Your task to perform on an android device: open app "DoorDash - Dasher" (install if not already installed) and go to login screen Image 0: 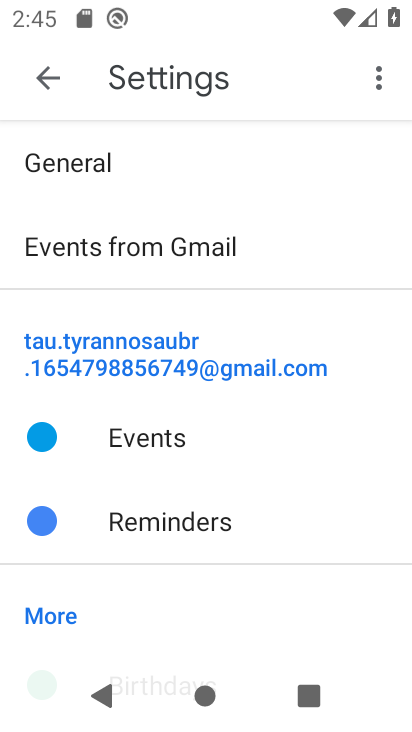
Step 0: press home button
Your task to perform on an android device: open app "DoorDash - Dasher" (install if not already installed) and go to login screen Image 1: 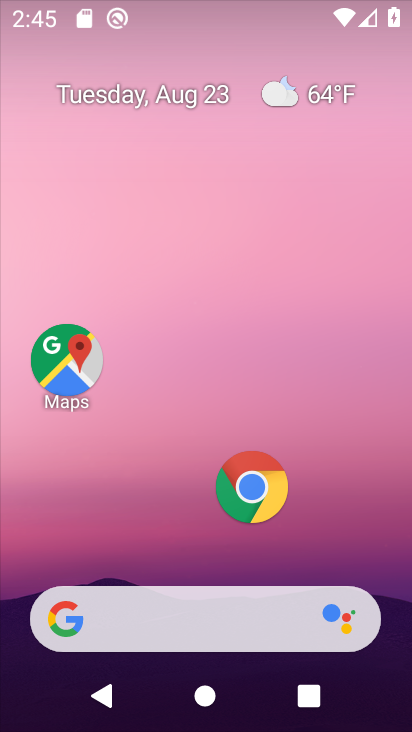
Step 1: drag from (164, 529) to (231, 218)
Your task to perform on an android device: open app "DoorDash - Dasher" (install if not already installed) and go to login screen Image 2: 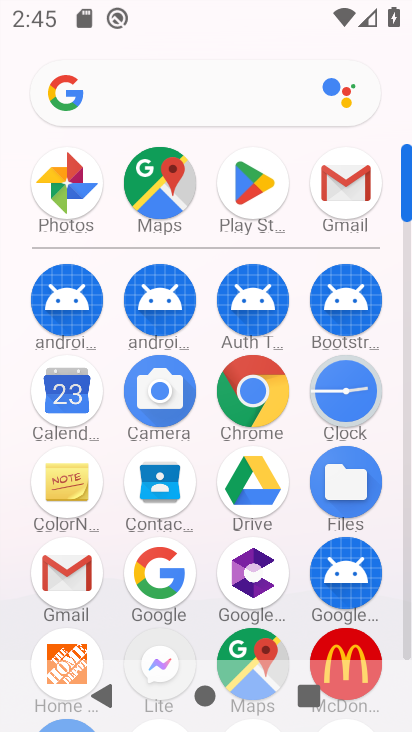
Step 2: click (251, 172)
Your task to perform on an android device: open app "DoorDash - Dasher" (install if not already installed) and go to login screen Image 3: 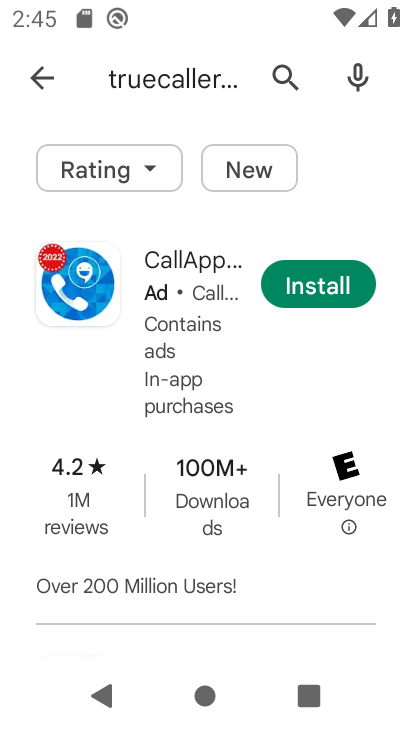
Step 3: click (43, 88)
Your task to perform on an android device: open app "DoorDash - Dasher" (install if not already installed) and go to login screen Image 4: 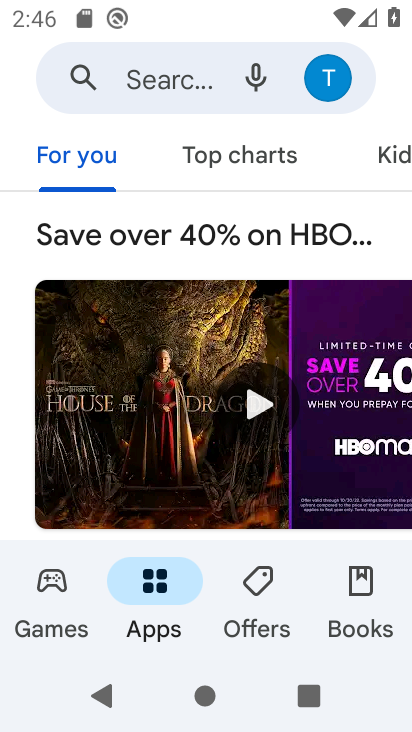
Step 4: click (131, 73)
Your task to perform on an android device: open app "DoorDash - Dasher" (install if not already installed) and go to login screen Image 5: 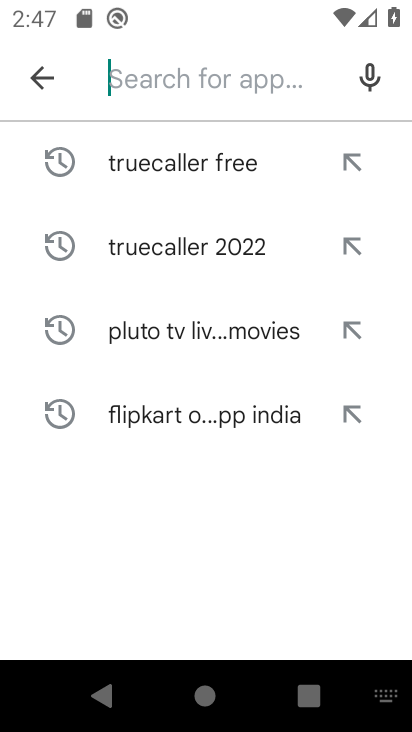
Step 5: type "DoorDash - Dasher "
Your task to perform on an android device: open app "DoorDash - Dasher" (install if not already installed) and go to login screen Image 6: 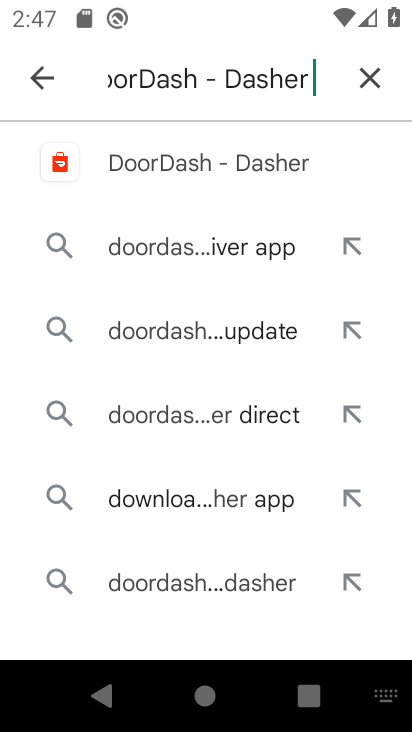
Step 6: click (163, 146)
Your task to perform on an android device: open app "DoorDash - Dasher" (install if not already installed) and go to login screen Image 7: 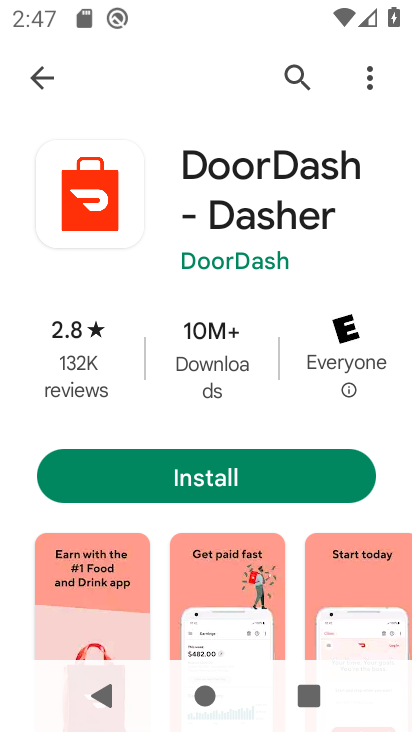
Step 7: click (240, 479)
Your task to perform on an android device: open app "DoorDash - Dasher" (install if not already installed) and go to login screen Image 8: 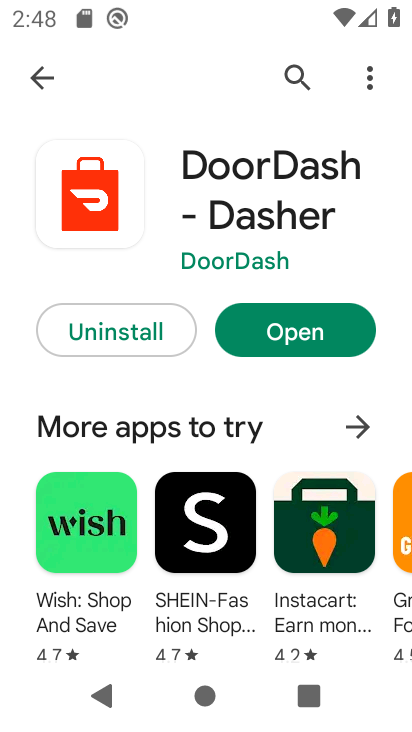
Step 8: task complete